Your task to perform on an android device: Go to eBay Image 0: 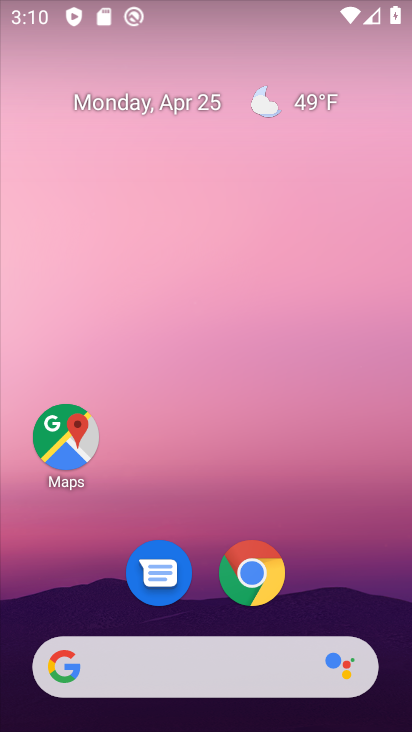
Step 0: click (283, 568)
Your task to perform on an android device: Go to eBay Image 1: 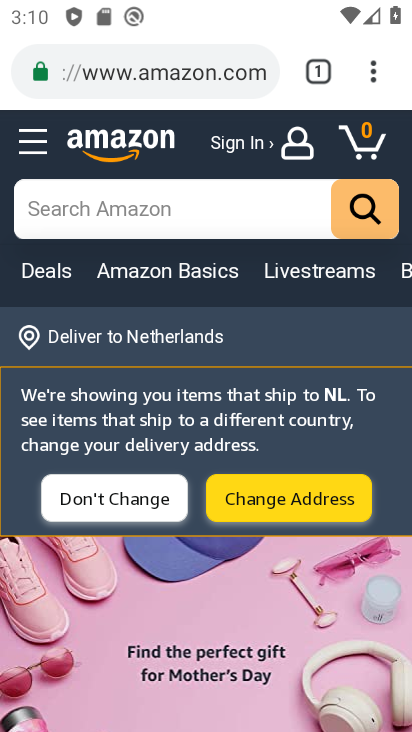
Step 1: click (336, 64)
Your task to perform on an android device: Go to eBay Image 2: 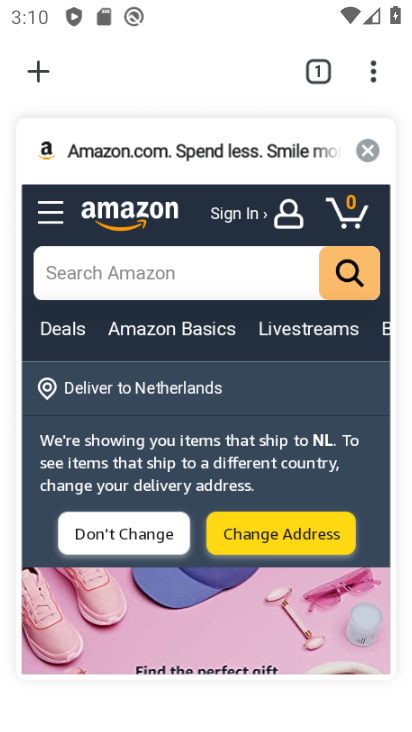
Step 2: click (368, 146)
Your task to perform on an android device: Go to eBay Image 3: 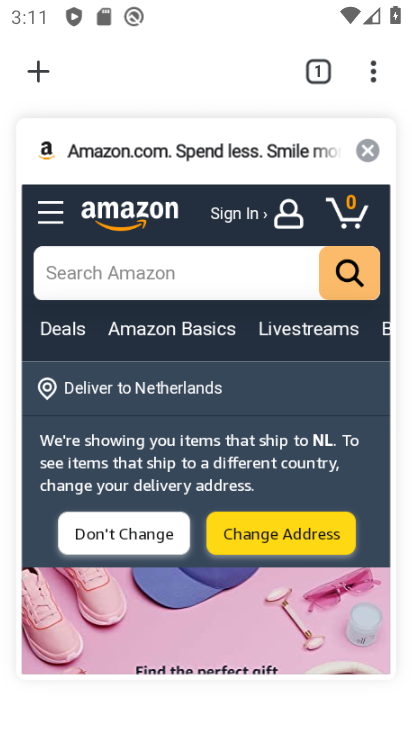
Step 3: click (374, 150)
Your task to perform on an android device: Go to eBay Image 4: 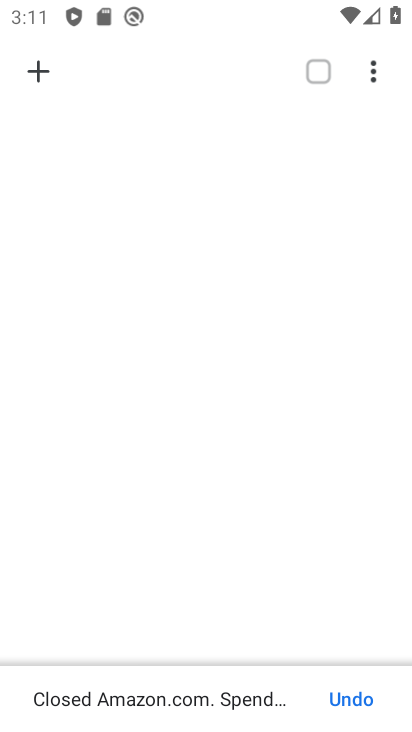
Step 4: click (35, 80)
Your task to perform on an android device: Go to eBay Image 5: 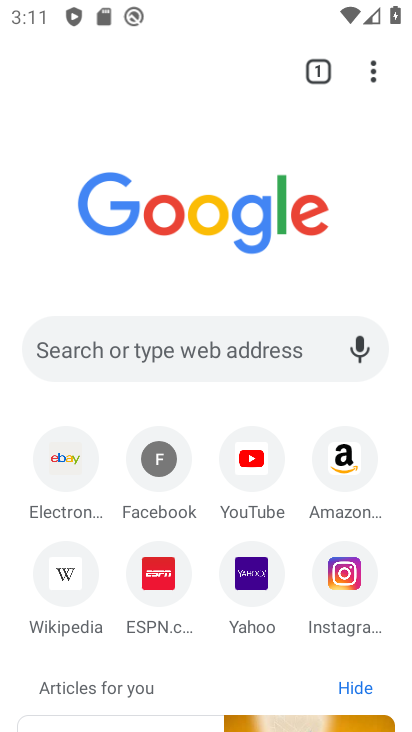
Step 5: click (257, 347)
Your task to perform on an android device: Go to eBay Image 6: 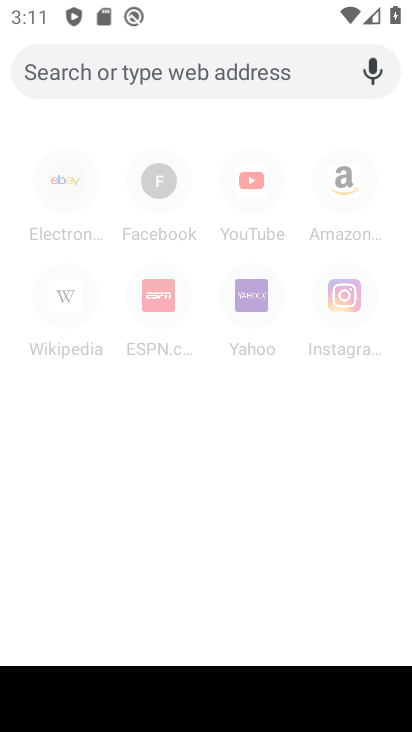
Step 6: type "ebay"
Your task to perform on an android device: Go to eBay Image 7: 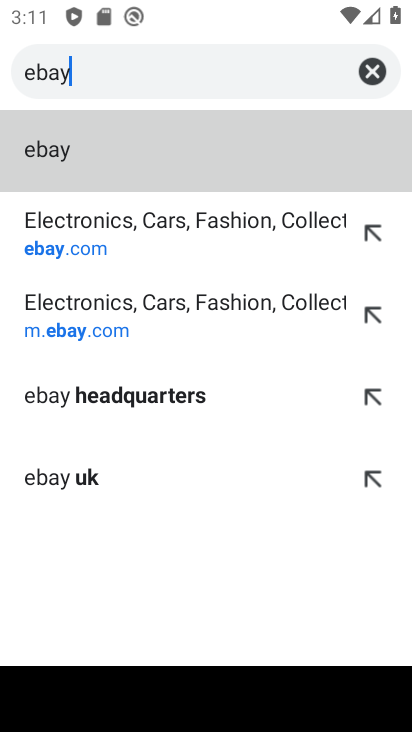
Step 7: click (98, 144)
Your task to perform on an android device: Go to eBay Image 8: 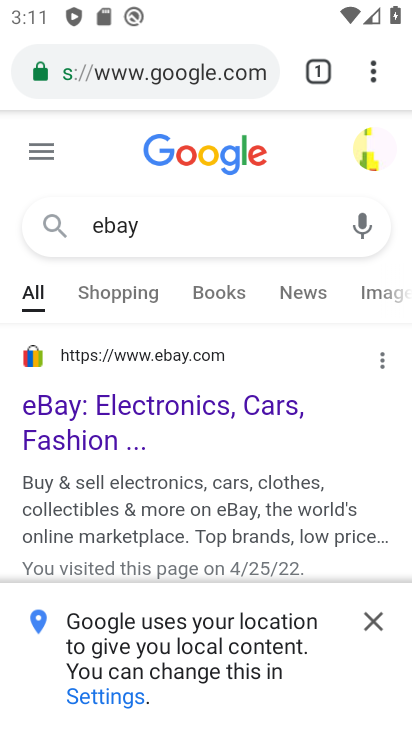
Step 8: click (62, 410)
Your task to perform on an android device: Go to eBay Image 9: 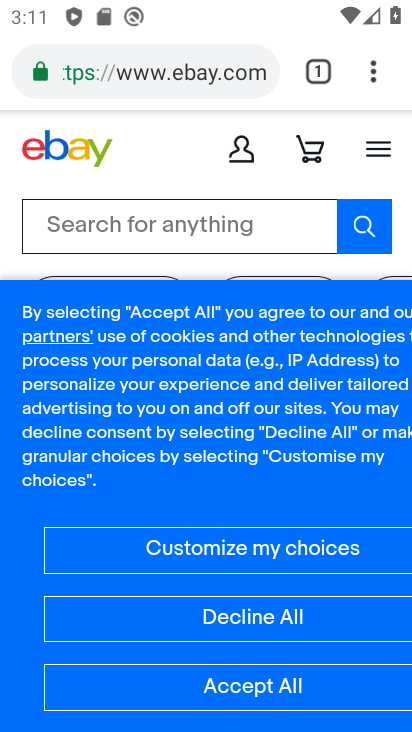
Step 9: task complete